Your task to perform on an android device: allow cookies in the chrome app Image 0: 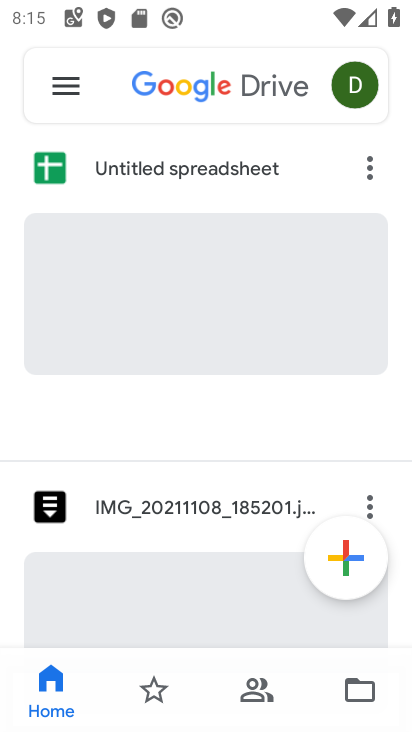
Step 0: press home button
Your task to perform on an android device: allow cookies in the chrome app Image 1: 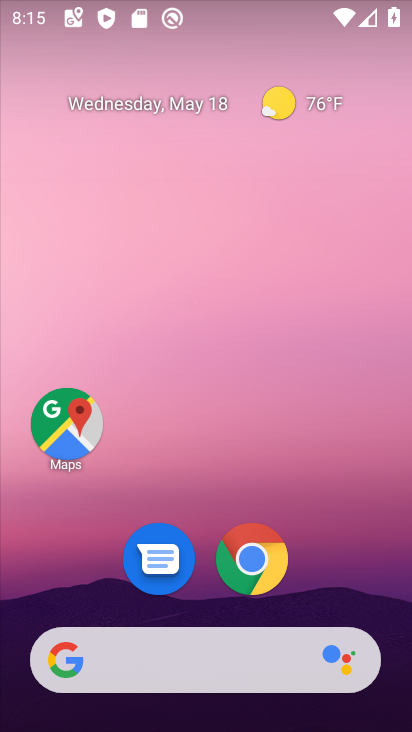
Step 1: click (257, 565)
Your task to perform on an android device: allow cookies in the chrome app Image 2: 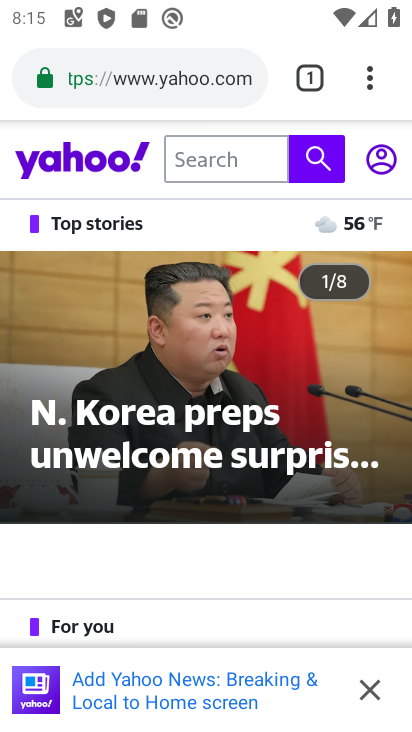
Step 2: click (366, 75)
Your task to perform on an android device: allow cookies in the chrome app Image 3: 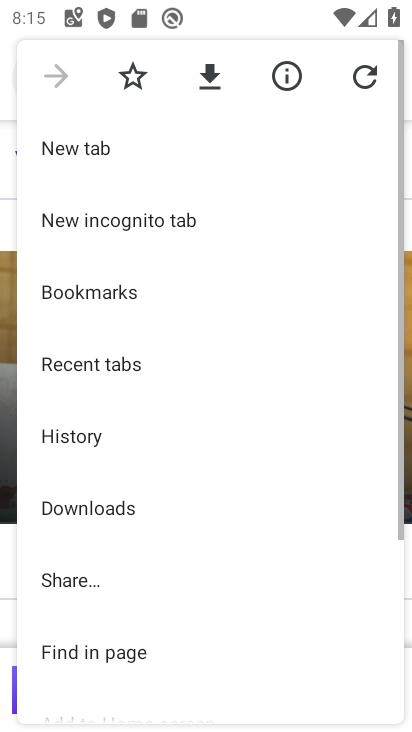
Step 3: drag from (120, 621) to (110, 104)
Your task to perform on an android device: allow cookies in the chrome app Image 4: 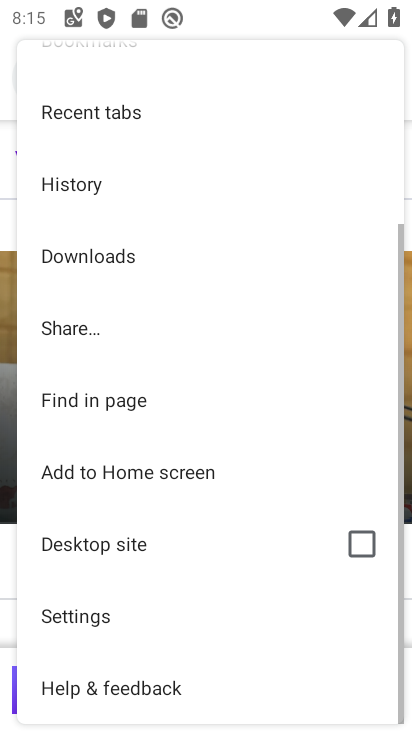
Step 4: click (74, 614)
Your task to perform on an android device: allow cookies in the chrome app Image 5: 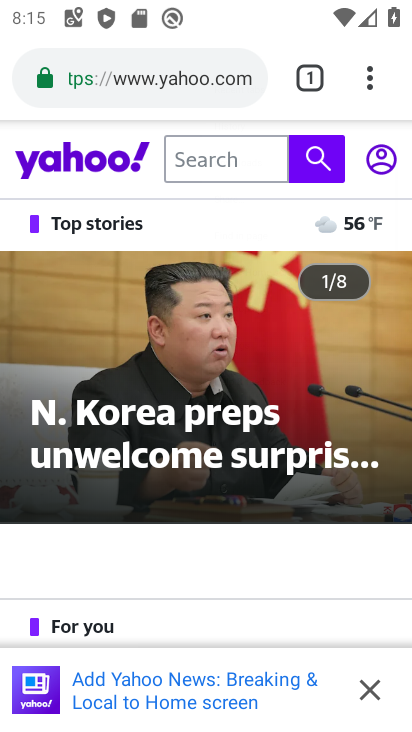
Step 5: click (211, 391)
Your task to perform on an android device: allow cookies in the chrome app Image 6: 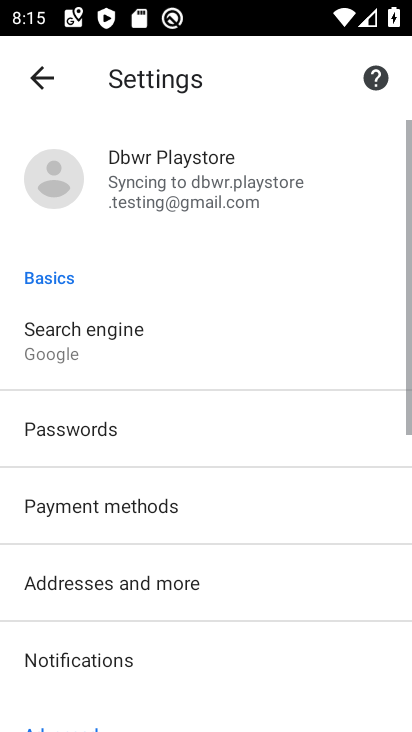
Step 6: drag from (243, 531) to (212, 101)
Your task to perform on an android device: allow cookies in the chrome app Image 7: 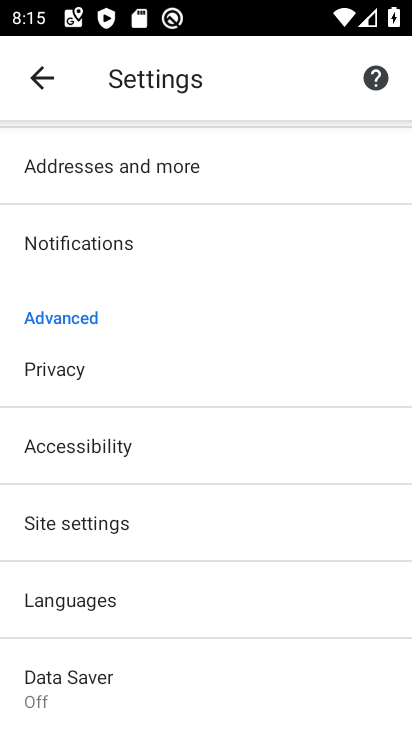
Step 7: click (88, 519)
Your task to perform on an android device: allow cookies in the chrome app Image 8: 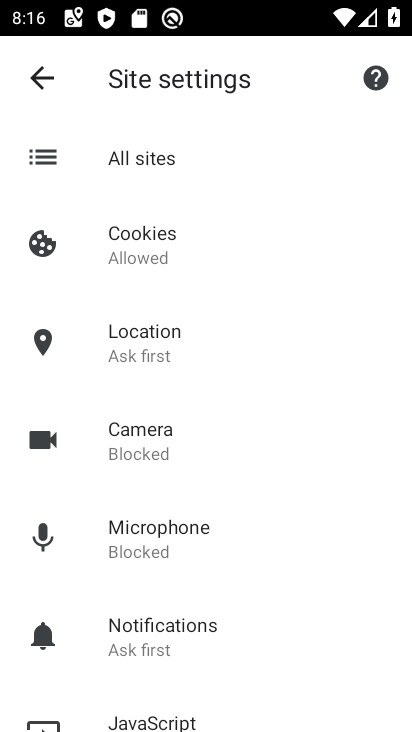
Step 8: click (238, 255)
Your task to perform on an android device: allow cookies in the chrome app Image 9: 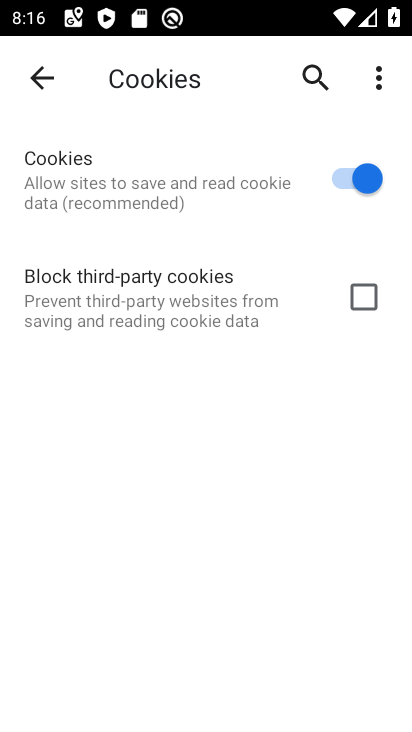
Step 9: task complete